Your task to perform on an android device: Search for the best vacuum on Amazon. Image 0: 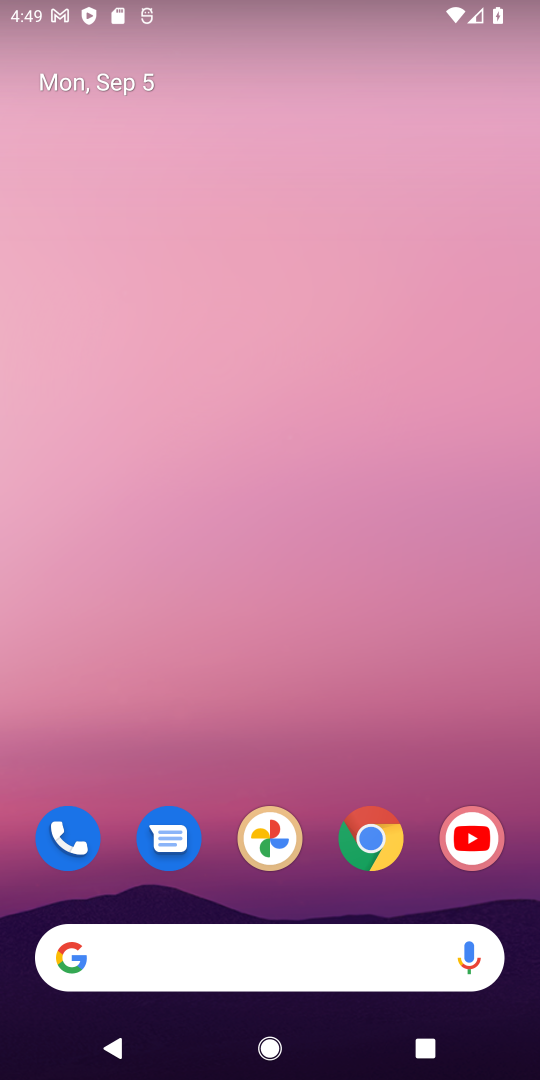
Step 0: drag from (304, 627) to (260, 64)
Your task to perform on an android device: Search for the best vacuum on Amazon. Image 1: 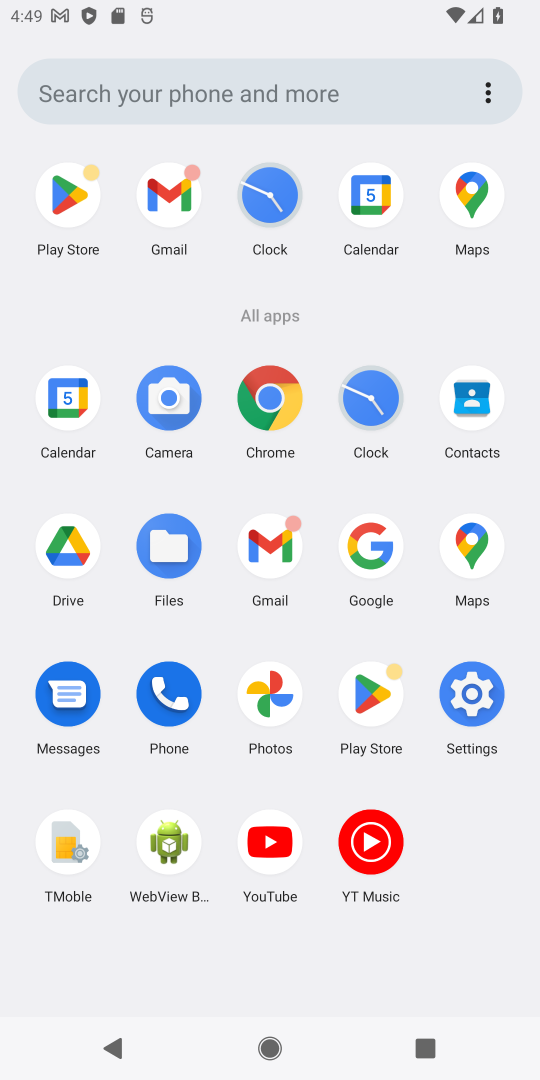
Step 1: click (264, 405)
Your task to perform on an android device: Search for the best vacuum on Amazon. Image 2: 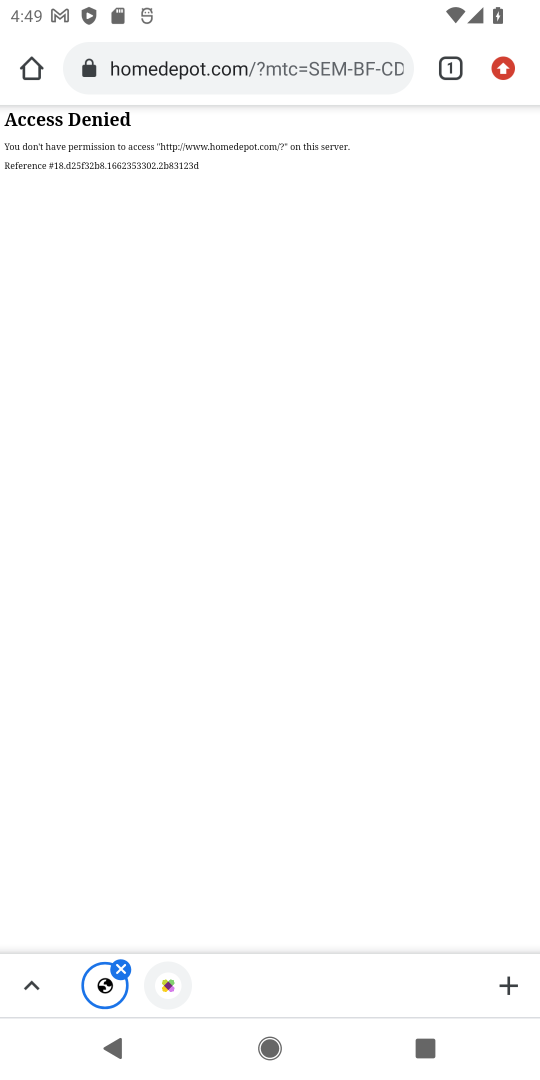
Step 2: click (164, 69)
Your task to perform on an android device: Search for the best vacuum on Amazon. Image 3: 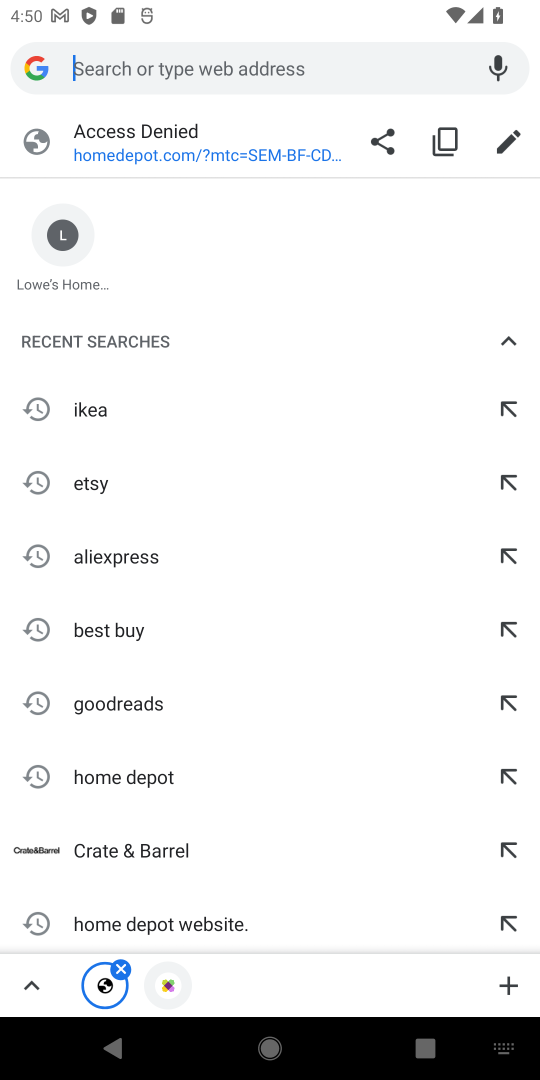
Step 3: type "Amazon"
Your task to perform on an android device: Search for the best vacuum on Amazon. Image 4: 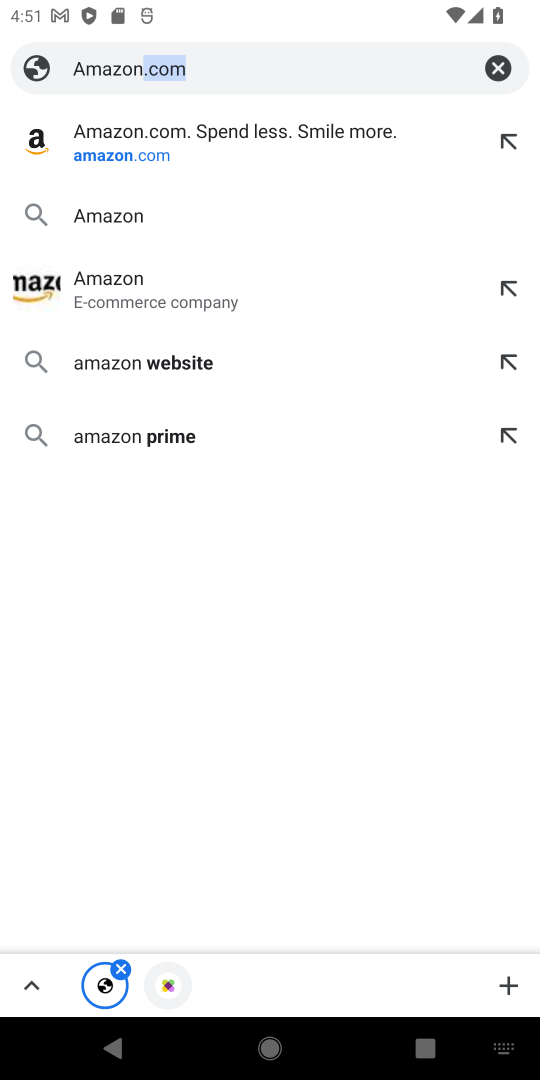
Step 4: click (145, 156)
Your task to perform on an android device: Search for the best vacuum on Amazon. Image 5: 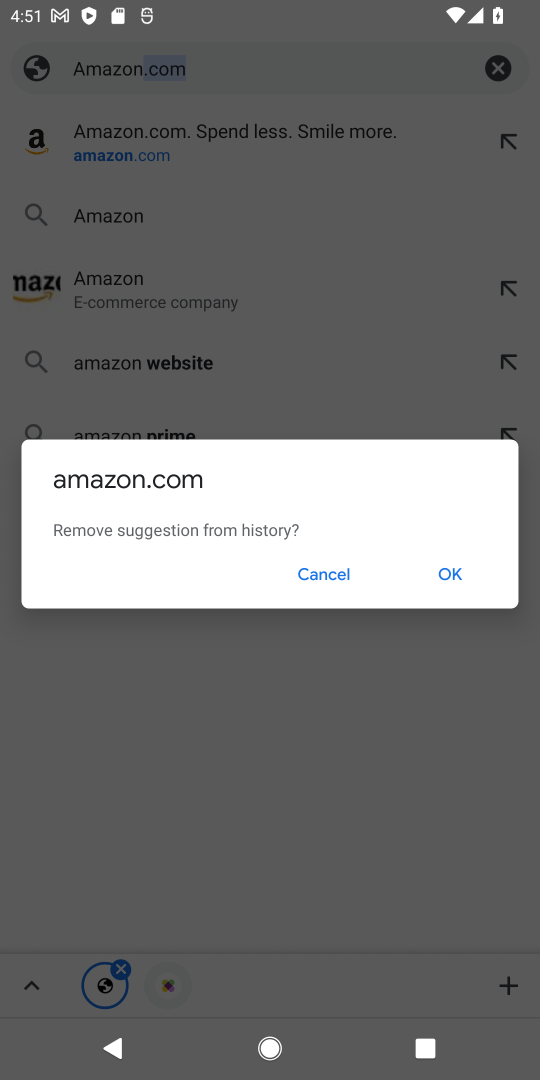
Step 5: click (449, 576)
Your task to perform on an android device: Search for the best vacuum on Amazon. Image 6: 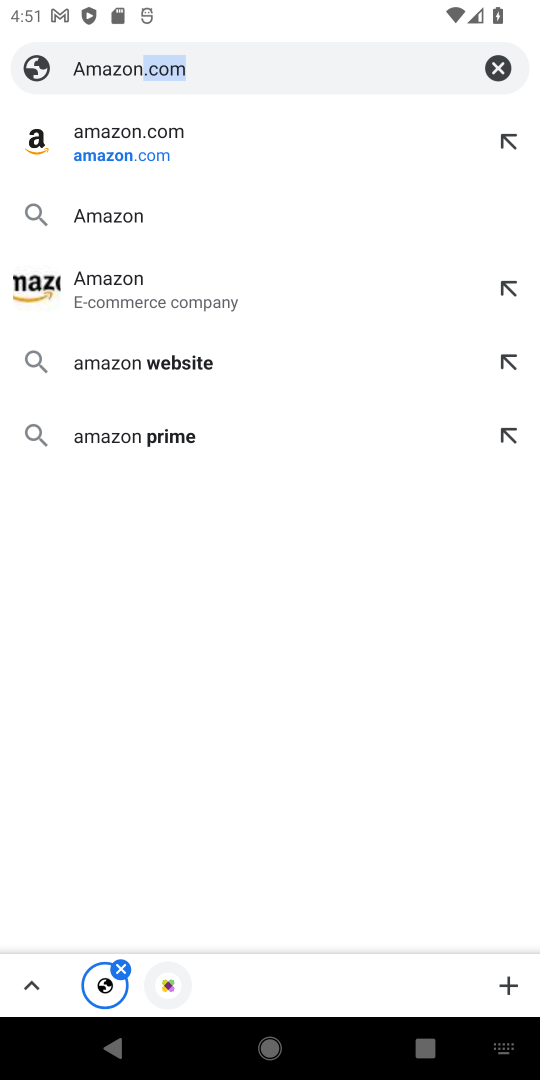
Step 6: click (117, 148)
Your task to perform on an android device: Search for the best vacuum on Amazon. Image 7: 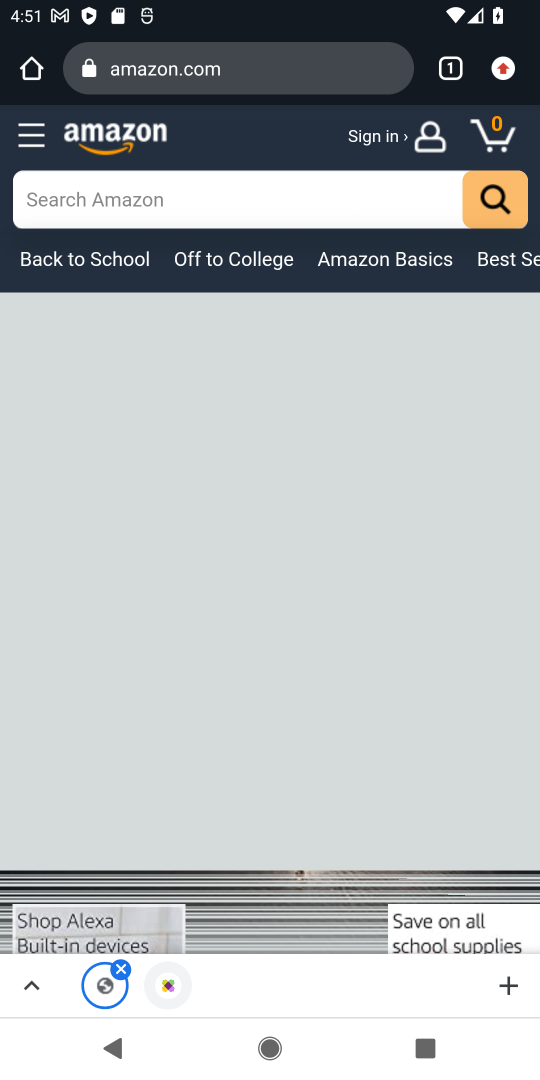
Step 7: drag from (352, 726) to (407, 229)
Your task to perform on an android device: Search for the best vacuum on Amazon. Image 8: 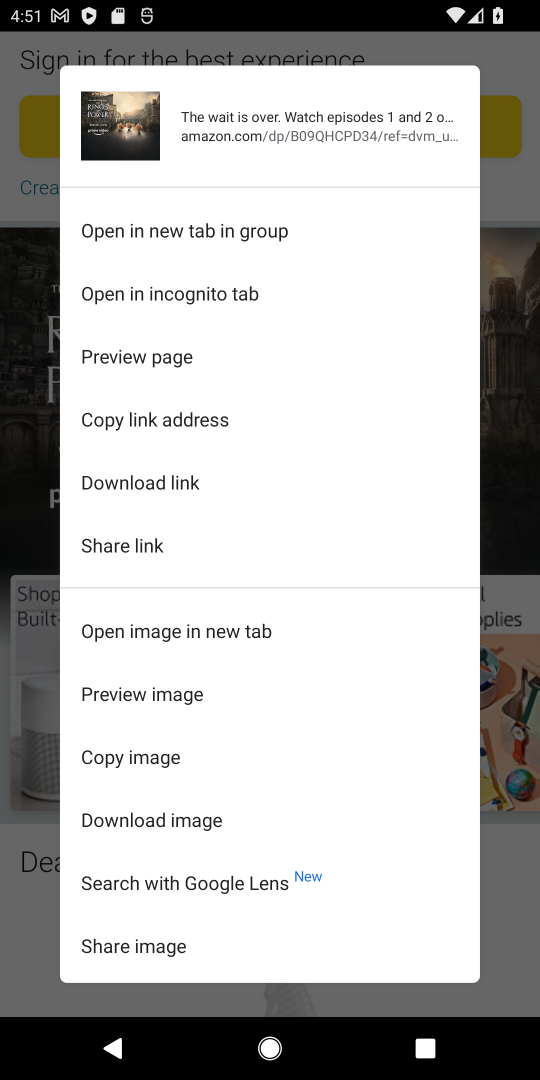
Step 8: click (499, 445)
Your task to perform on an android device: Search for the best vacuum on Amazon. Image 9: 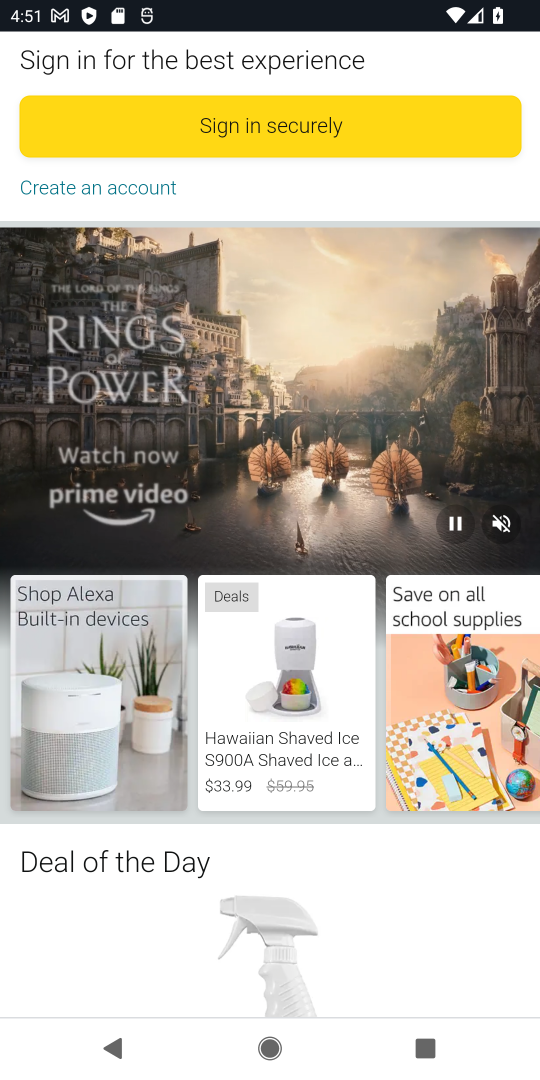
Step 9: task complete